Your task to perform on an android device: Open calendar and show me the second week of next month Image 0: 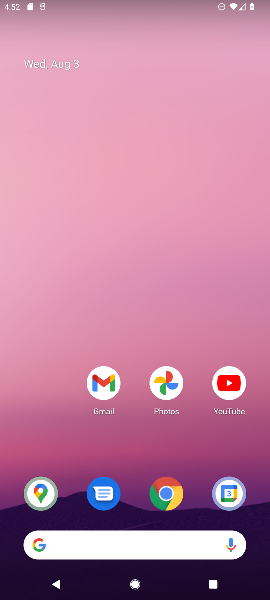
Step 0: press home button
Your task to perform on an android device: Open calendar and show me the second week of next month Image 1: 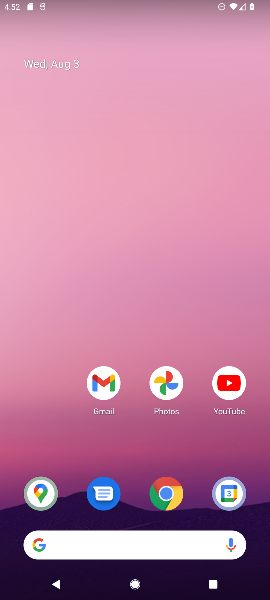
Step 1: drag from (56, 441) to (88, 140)
Your task to perform on an android device: Open calendar and show me the second week of next month Image 2: 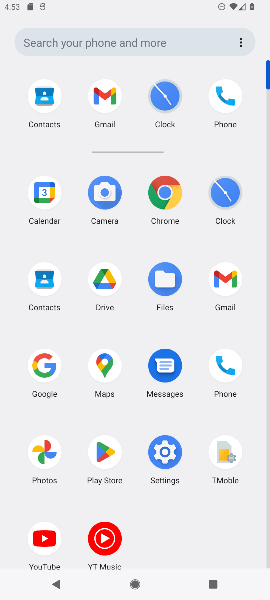
Step 2: click (41, 197)
Your task to perform on an android device: Open calendar and show me the second week of next month Image 3: 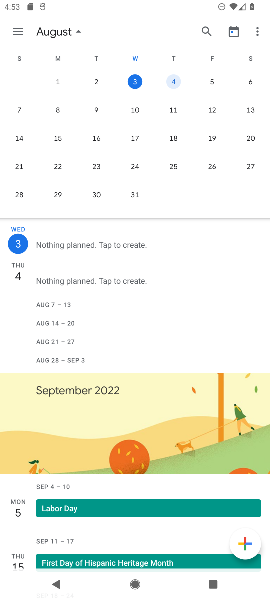
Step 3: drag from (254, 89) to (29, 96)
Your task to perform on an android device: Open calendar and show me the second week of next month Image 4: 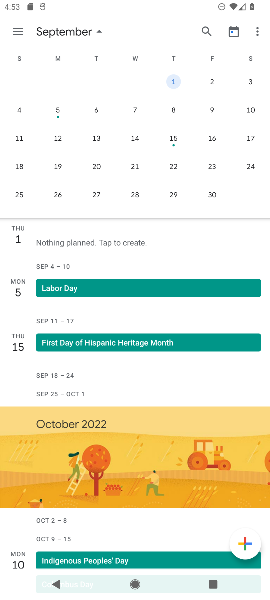
Step 4: click (63, 140)
Your task to perform on an android device: Open calendar and show me the second week of next month Image 5: 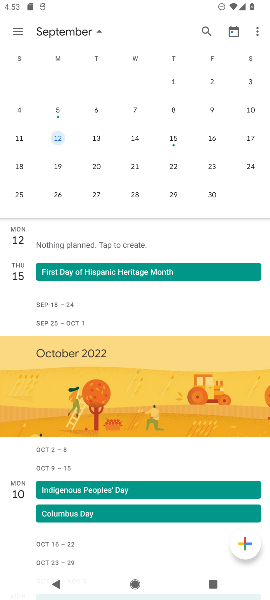
Step 5: task complete